Your task to perform on an android device: Go to battery settings Image 0: 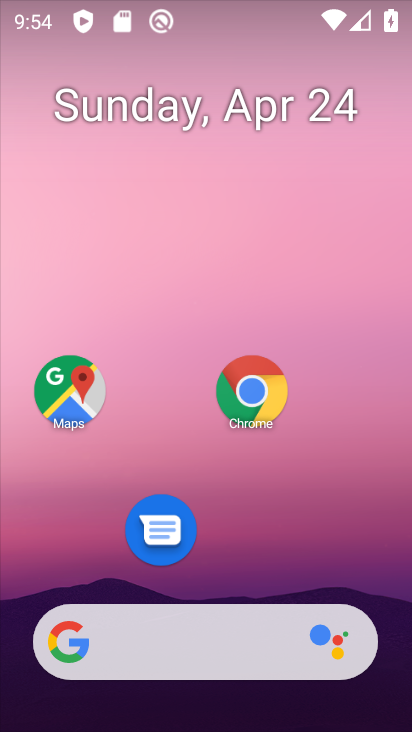
Step 0: drag from (241, 586) to (208, 13)
Your task to perform on an android device: Go to battery settings Image 1: 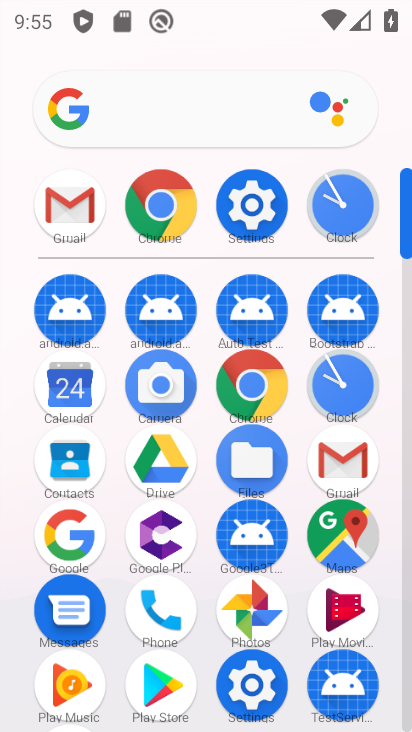
Step 1: click (250, 202)
Your task to perform on an android device: Go to battery settings Image 2: 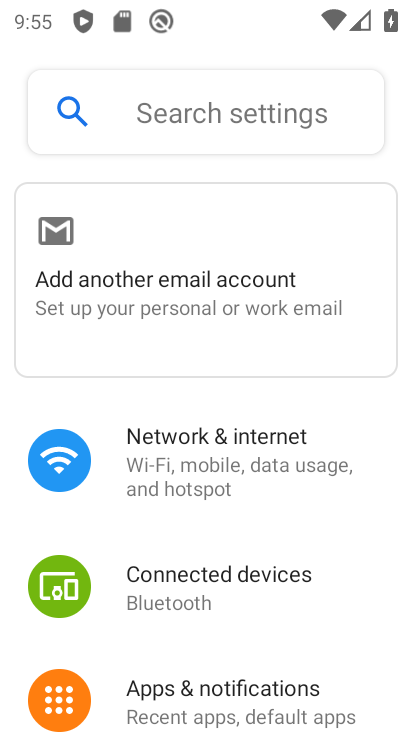
Step 2: drag from (206, 668) to (221, 301)
Your task to perform on an android device: Go to battery settings Image 3: 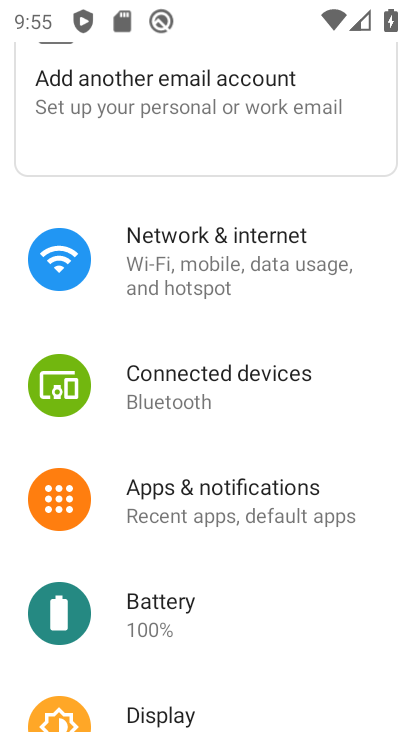
Step 3: click (160, 611)
Your task to perform on an android device: Go to battery settings Image 4: 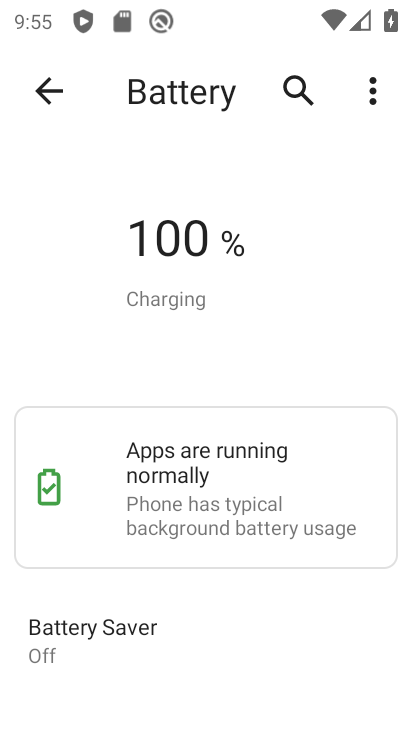
Step 4: click (364, 101)
Your task to perform on an android device: Go to battery settings Image 5: 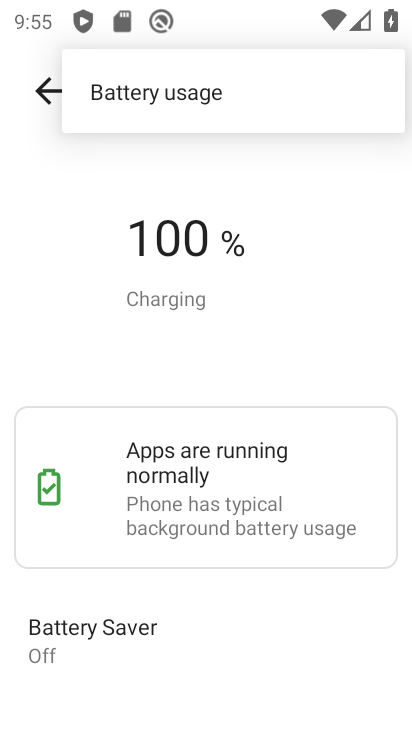
Step 5: click (315, 98)
Your task to perform on an android device: Go to battery settings Image 6: 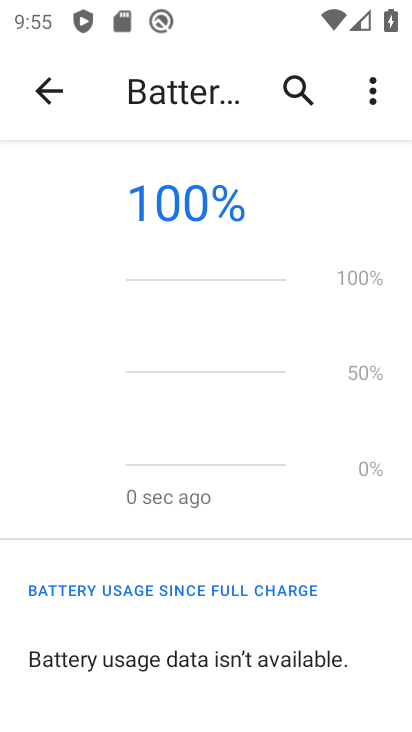
Step 6: task complete